Your task to perform on an android device: Open CNN.com Image 0: 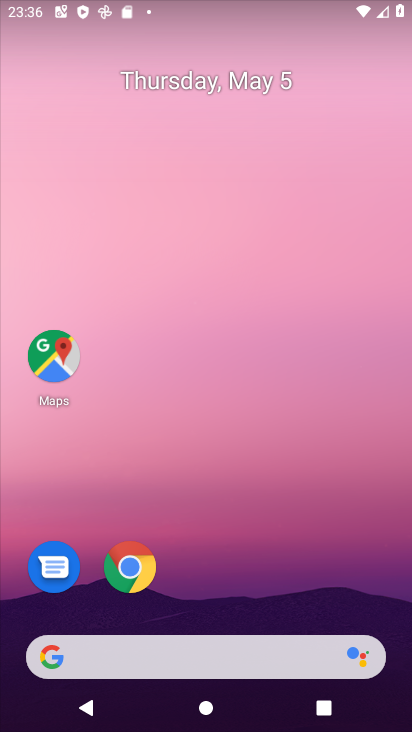
Step 0: click (146, 566)
Your task to perform on an android device: Open CNN.com Image 1: 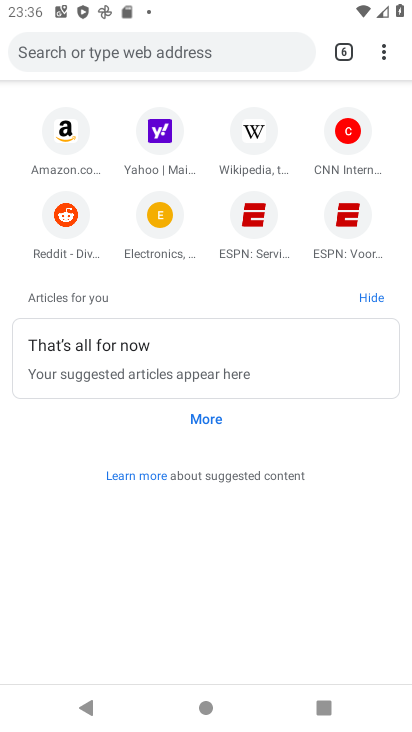
Step 1: click (358, 135)
Your task to perform on an android device: Open CNN.com Image 2: 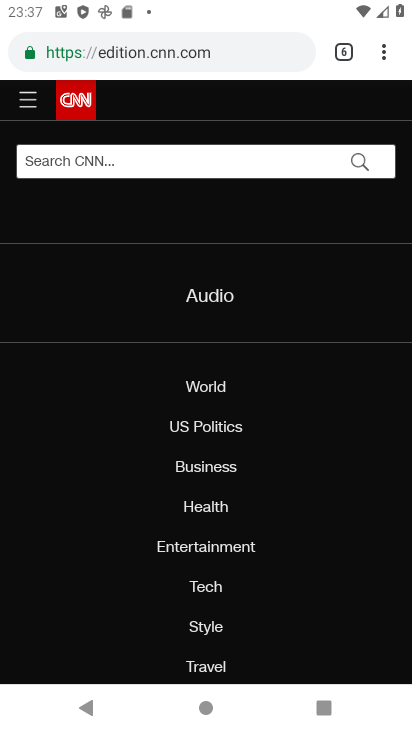
Step 2: task complete